Your task to perform on an android device: Go to privacy settings Image 0: 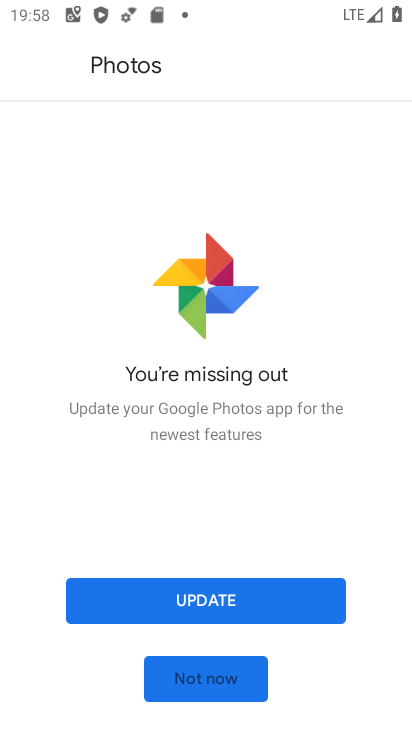
Step 0: press home button
Your task to perform on an android device: Go to privacy settings Image 1: 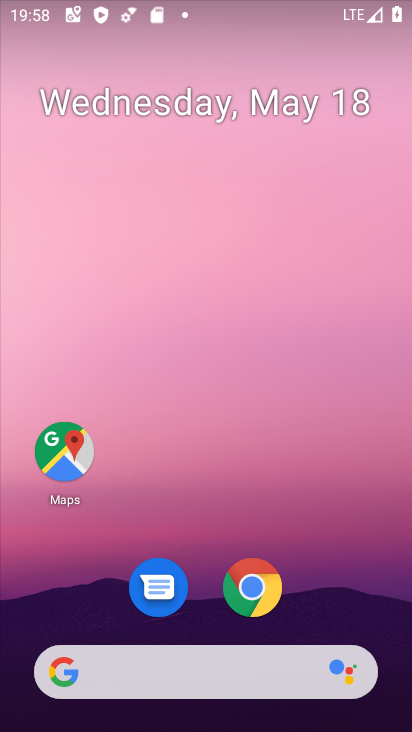
Step 1: drag from (201, 620) to (236, 149)
Your task to perform on an android device: Go to privacy settings Image 2: 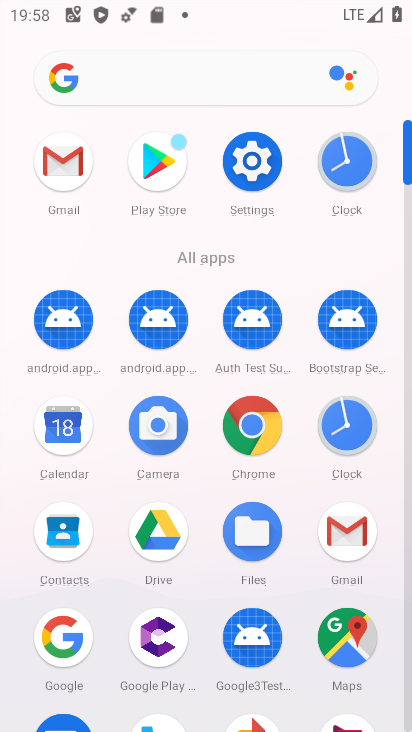
Step 2: click (261, 155)
Your task to perform on an android device: Go to privacy settings Image 3: 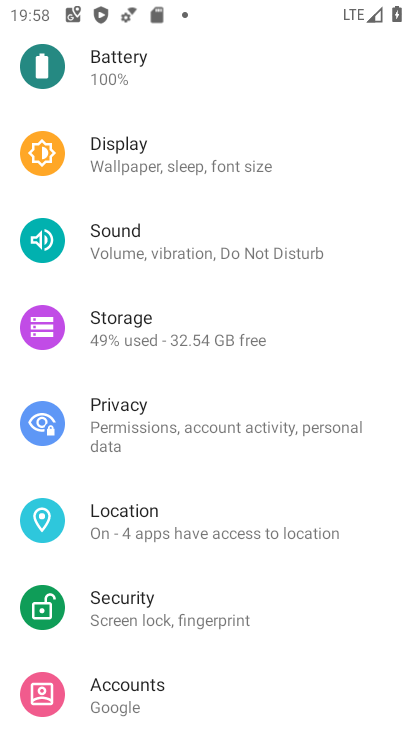
Step 3: drag from (148, 671) to (212, 238)
Your task to perform on an android device: Go to privacy settings Image 4: 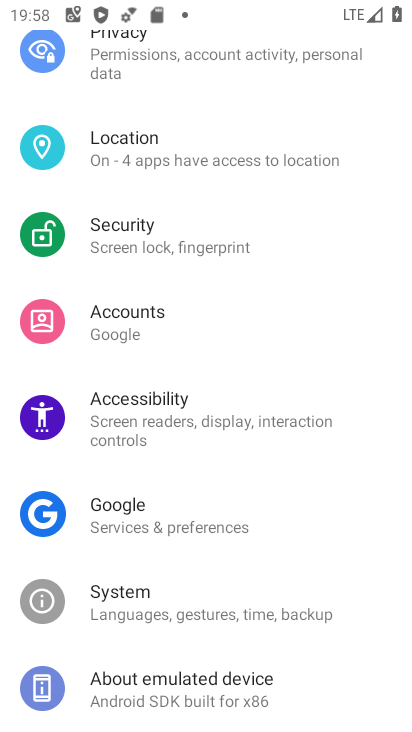
Step 4: drag from (227, 190) to (250, 471)
Your task to perform on an android device: Go to privacy settings Image 5: 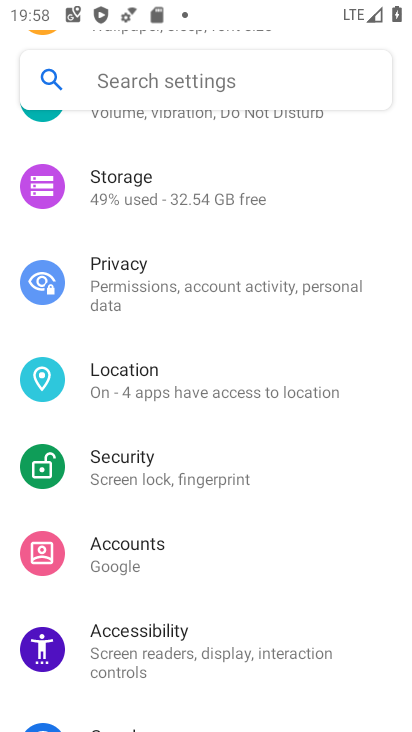
Step 5: click (126, 292)
Your task to perform on an android device: Go to privacy settings Image 6: 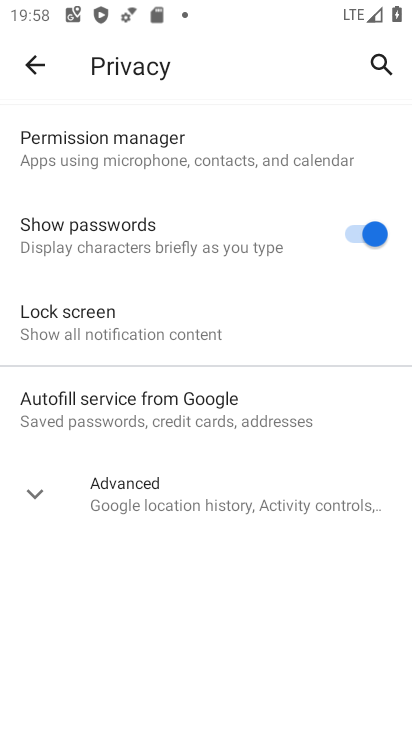
Step 6: task complete